Your task to perform on an android device: Search for sushi restaurants on Maps Image 0: 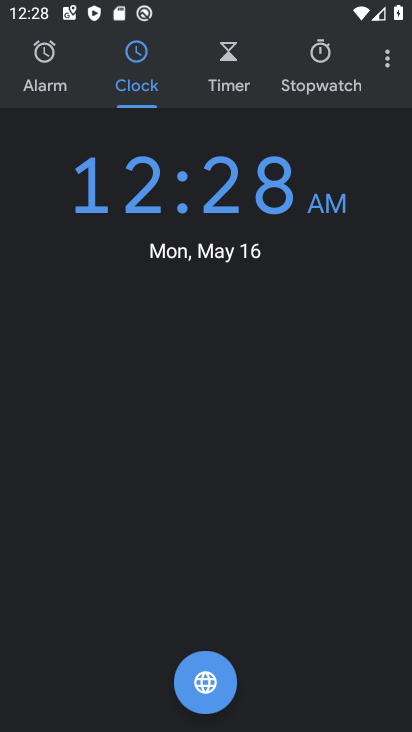
Step 0: press back button
Your task to perform on an android device: Search for sushi restaurants on Maps Image 1: 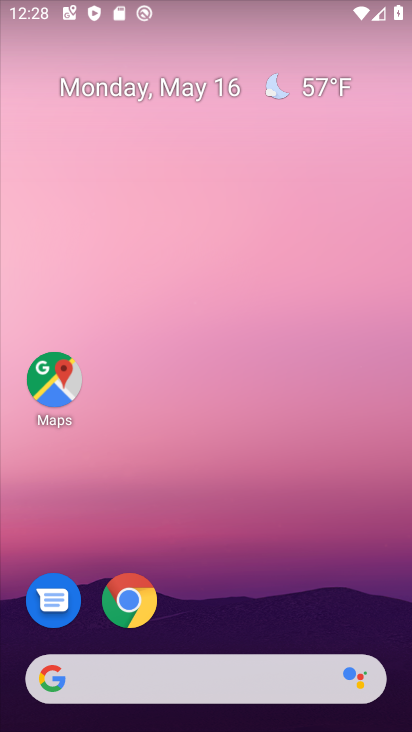
Step 1: click (56, 379)
Your task to perform on an android device: Search for sushi restaurants on Maps Image 2: 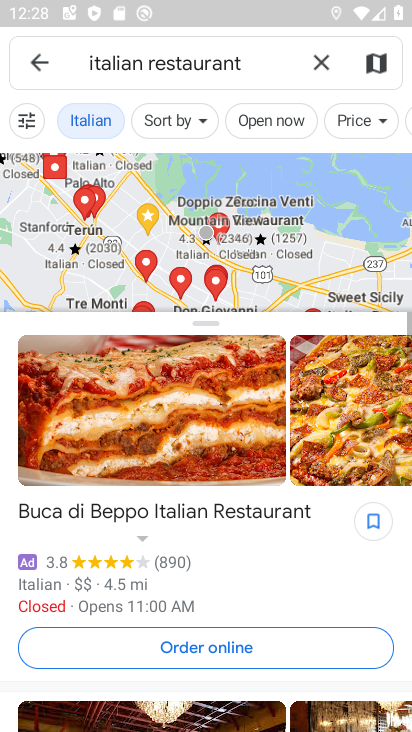
Step 2: click (37, 55)
Your task to perform on an android device: Search for sushi restaurants on Maps Image 3: 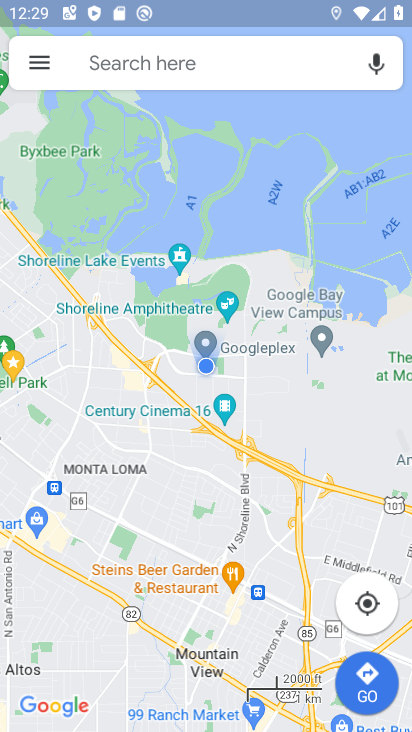
Step 3: click (83, 56)
Your task to perform on an android device: Search for sushi restaurants on Maps Image 4: 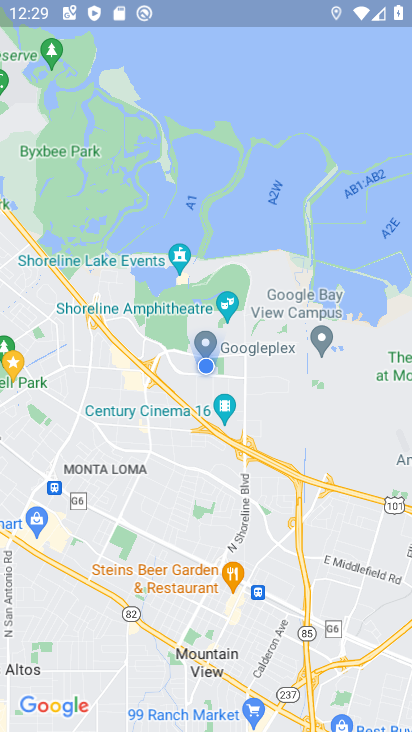
Step 4: drag from (143, 216) to (167, 673)
Your task to perform on an android device: Search for sushi restaurants on Maps Image 5: 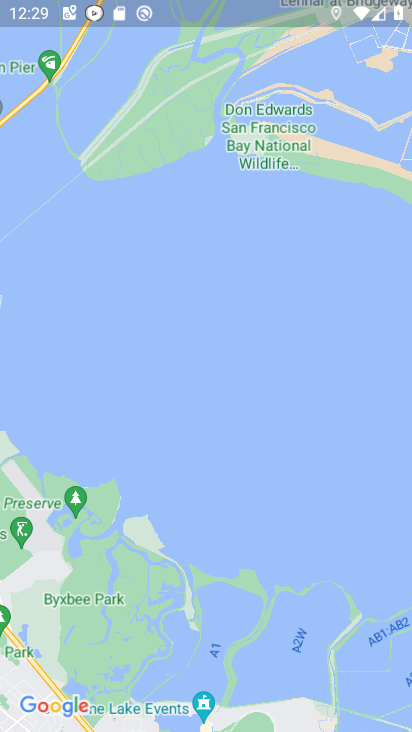
Step 5: press back button
Your task to perform on an android device: Search for sushi restaurants on Maps Image 6: 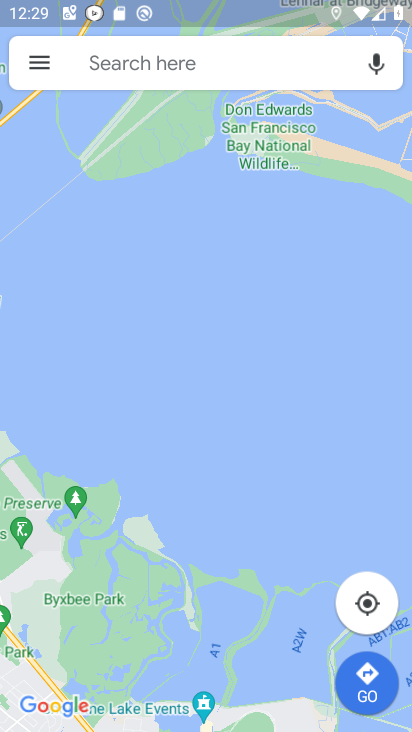
Step 6: click (155, 63)
Your task to perform on an android device: Search for sushi restaurants on Maps Image 7: 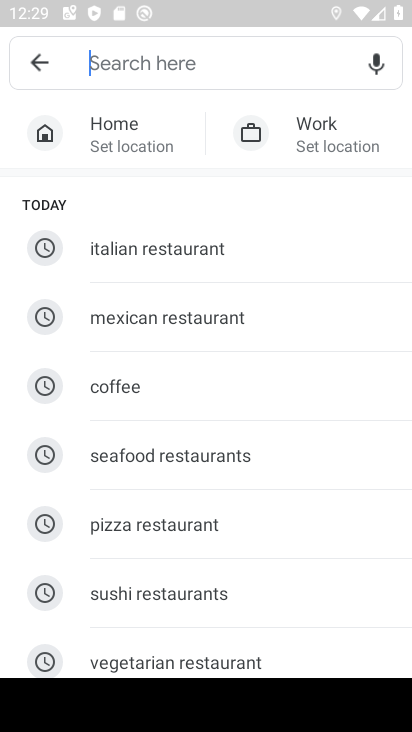
Step 7: click (148, 581)
Your task to perform on an android device: Search for sushi restaurants on Maps Image 8: 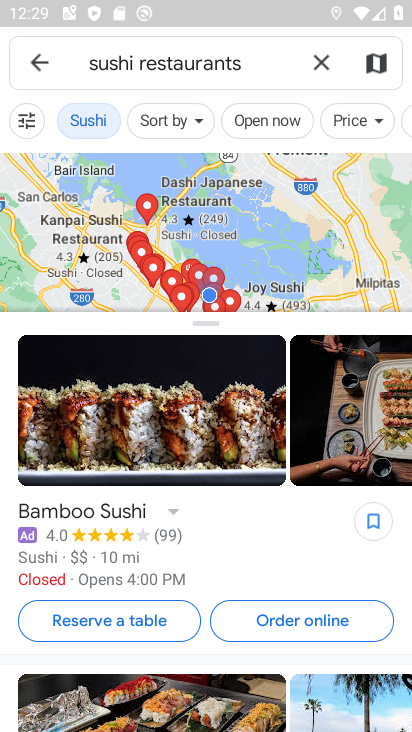
Step 8: task complete